Your task to perform on an android device: open app "Google Drive" (install if not already installed) Image 0: 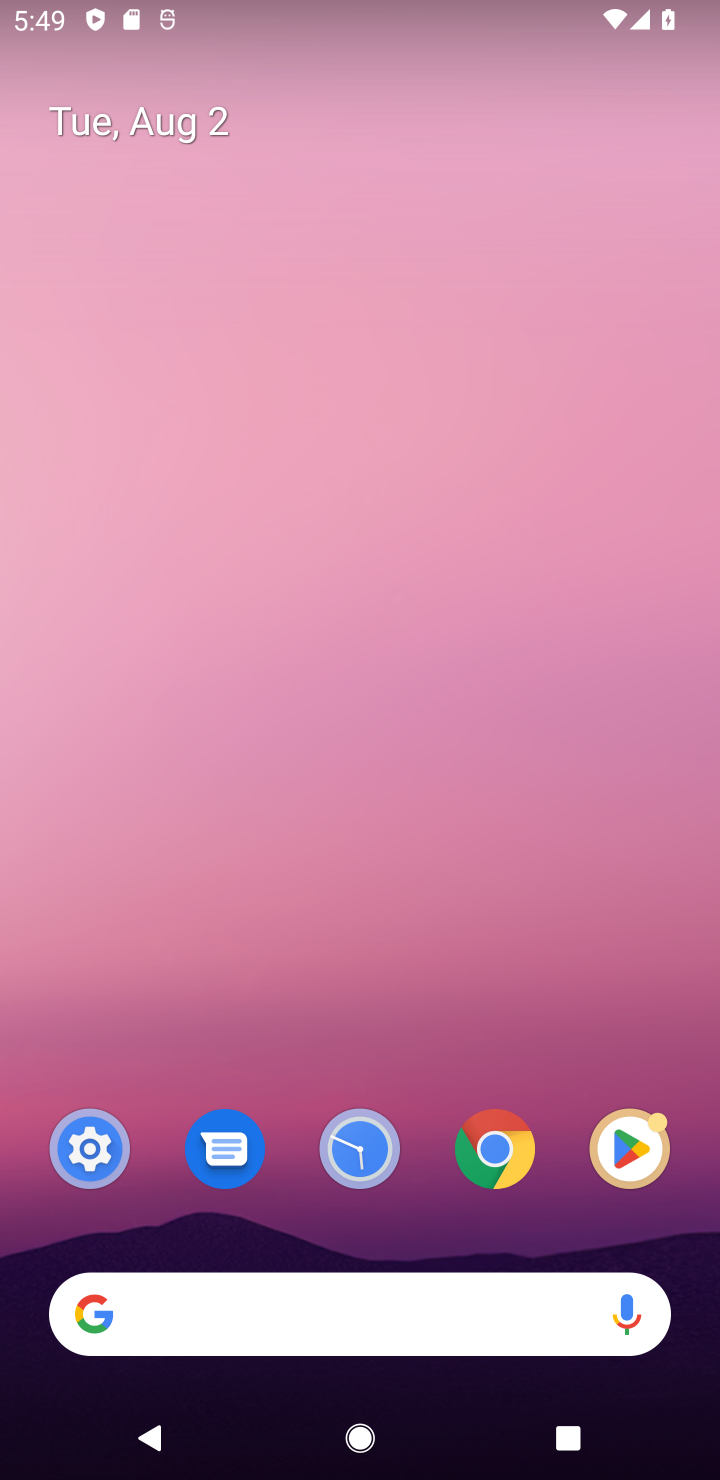
Step 0: click (632, 1118)
Your task to perform on an android device: open app "Google Drive" (install if not already installed) Image 1: 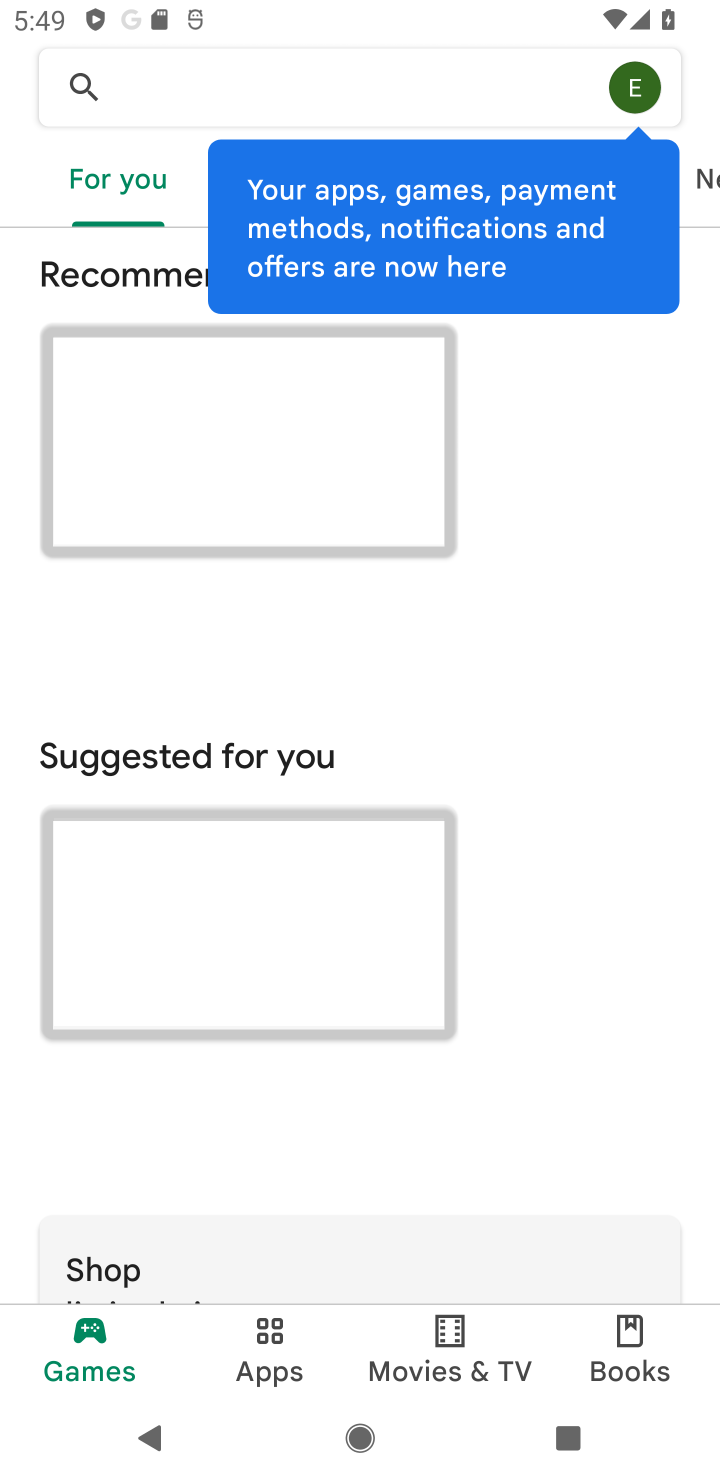
Step 1: click (232, 84)
Your task to perform on an android device: open app "Google Drive" (install if not already installed) Image 2: 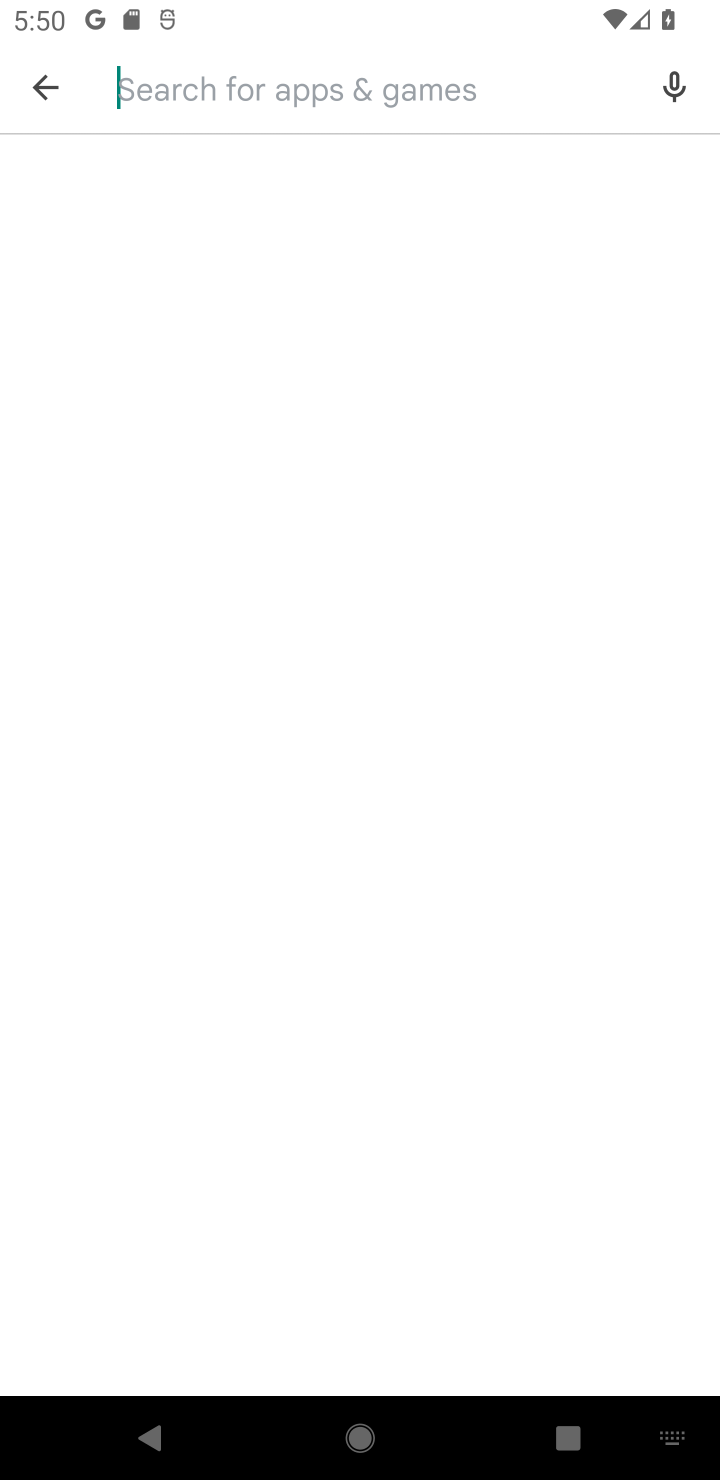
Step 2: type "Google Drive"
Your task to perform on an android device: open app "Google Drive" (install if not already installed) Image 3: 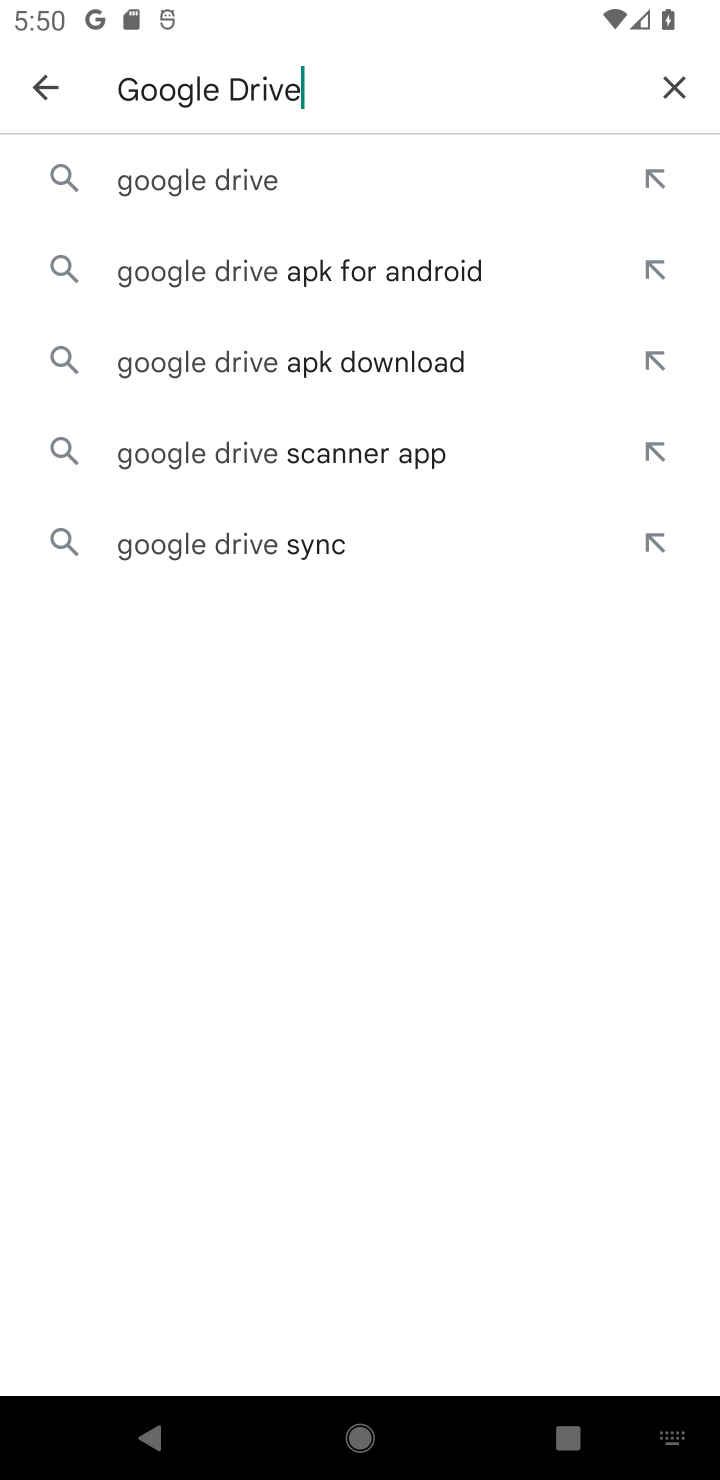
Step 3: click (161, 184)
Your task to perform on an android device: open app "Google Drive" (install if not already installed) Image 4: 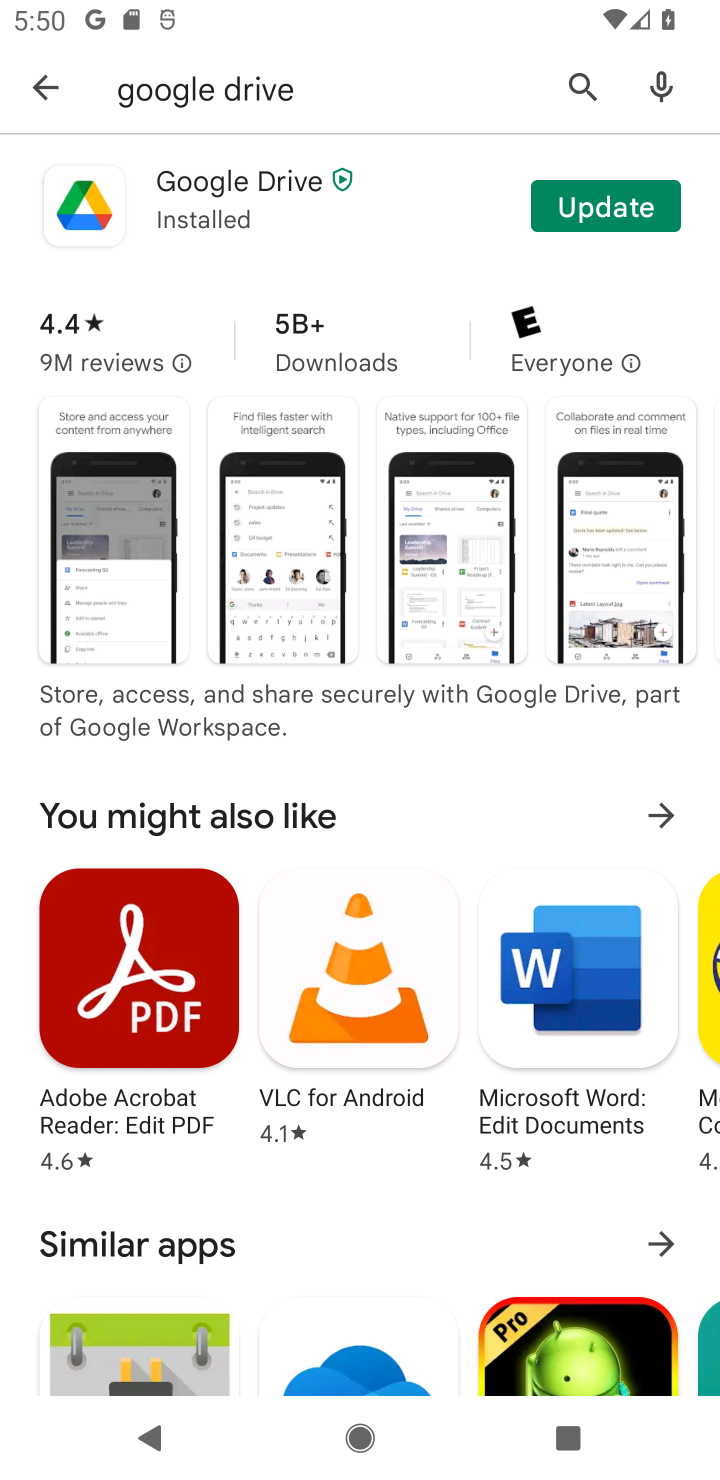
Step 4: click (558, 211)
Your task to perform on an android device: open app "Google Drive" (install if not already installed) Image 5: 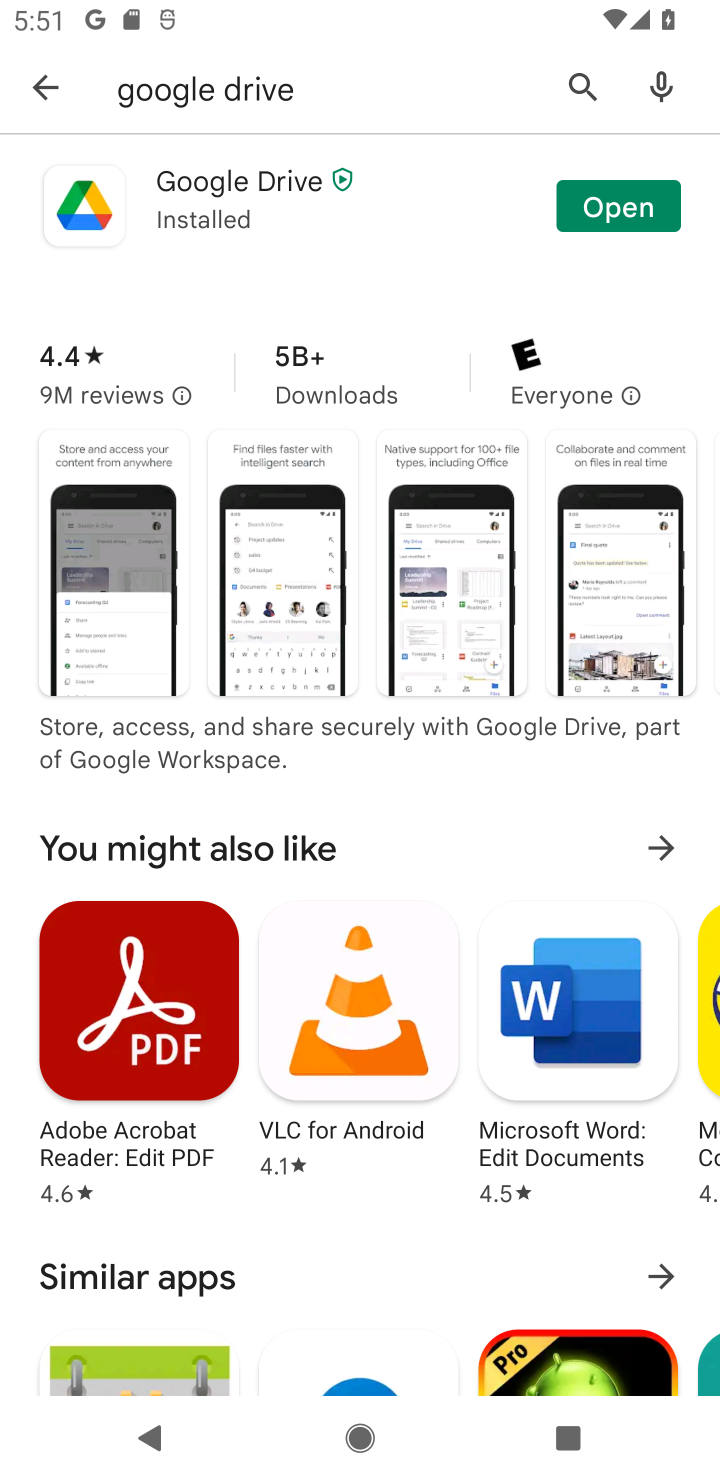
Step 5: click (588, 204)
Your task to perform on an android device: open app "Google Drive" (install if not already installed) Image 6: 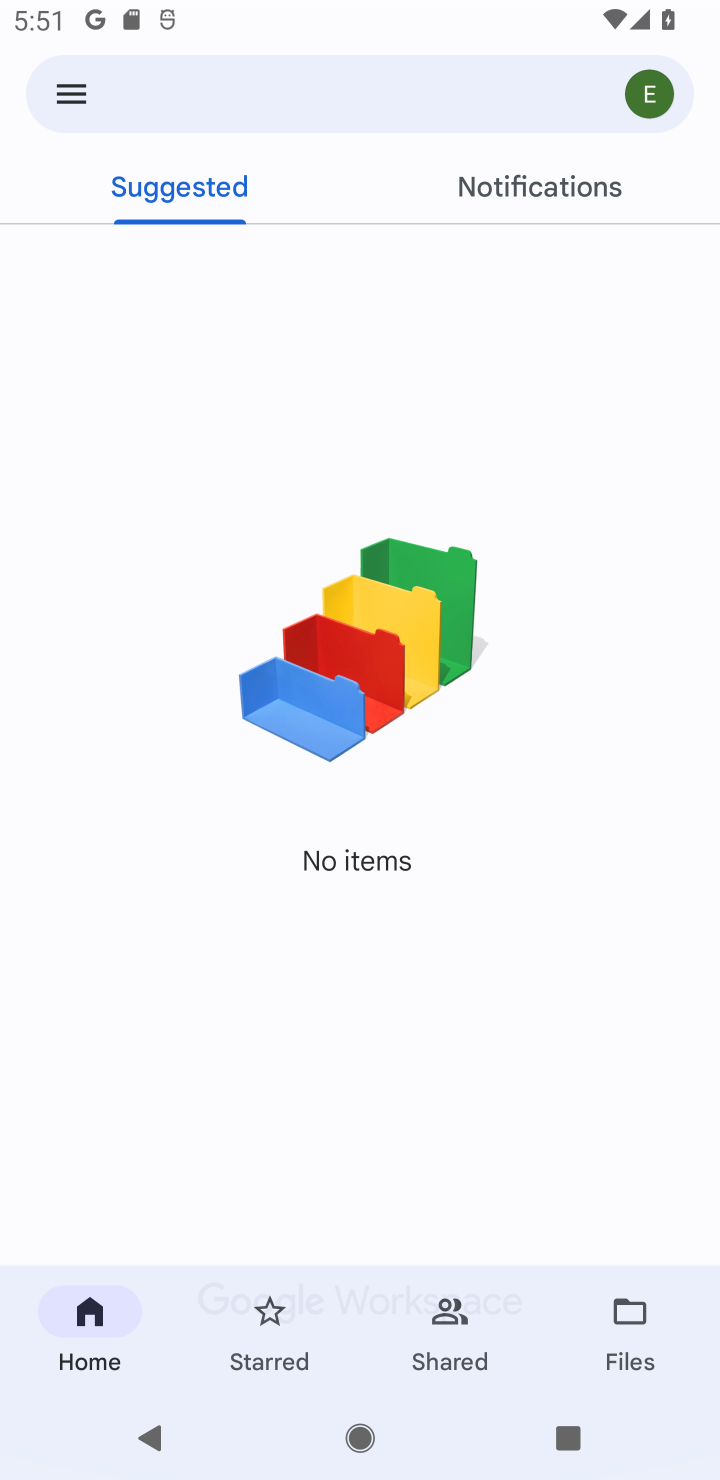
Step 6: task complete